Your task to perform on an android device: Do I have any events this weekend? Image 0: 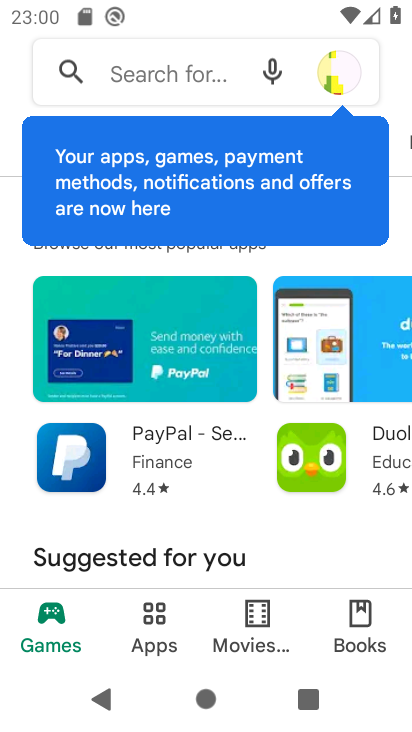
Step 0: press home button
Your task to perform on an android device: Do I have any events this weekend? Image 1: 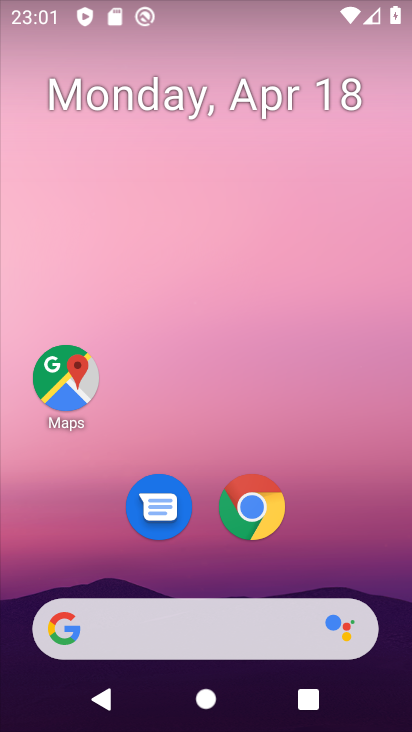
Step 1: drag from (319, 499) to (290, 81)
Your task to perform on an android device: Do I have any events this weekend? Image 2: 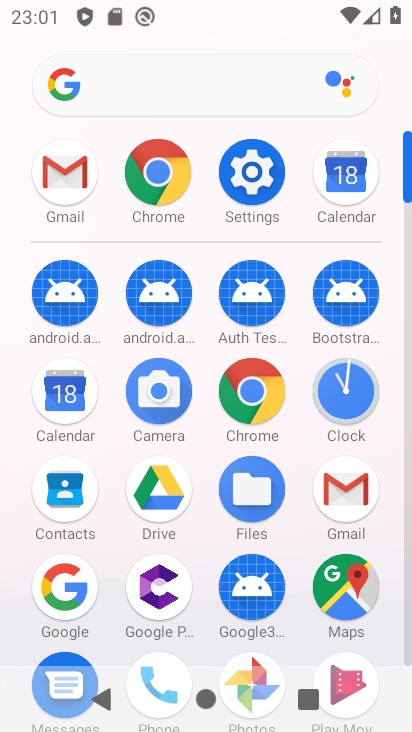
Step 2: click (57, 387)
Your task to perform on an android device: Do I have any events this weekend? Image 3: 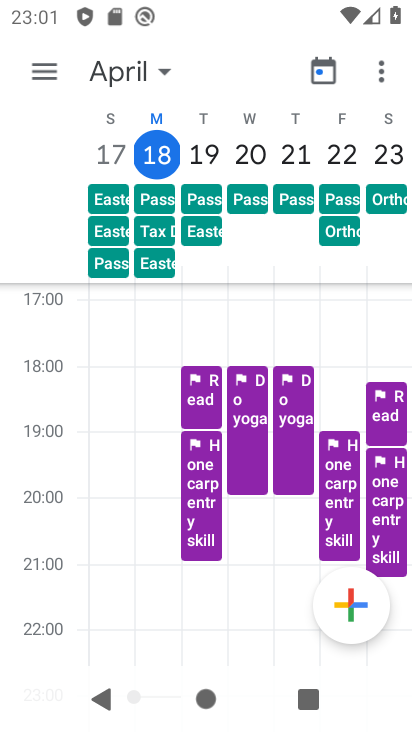
Step 3: click (381, 403)
Your task to perform on an android device: Do I have any events this weekend? Image 4: 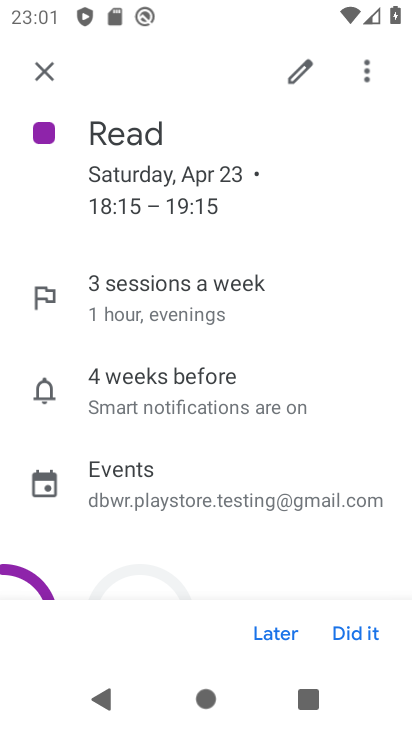
Step 4: task complete